Your task to perform on an android device: turn off translation in the chrome app Image 0: 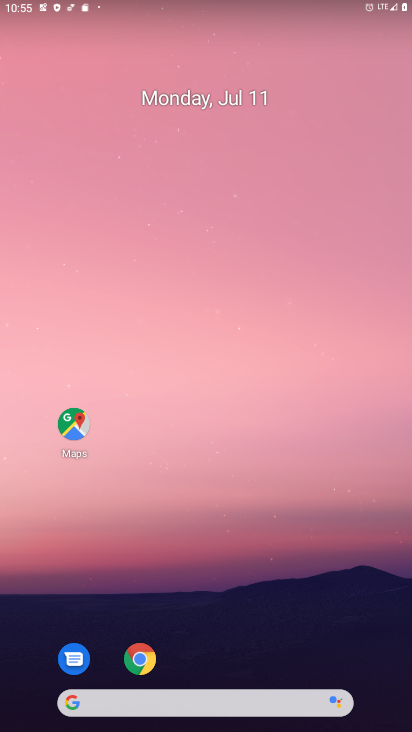
Step 0: drag from (212, 659) to (310, 178)
Your task to perform on an android device: turn off translation in the chrome app Image 1: 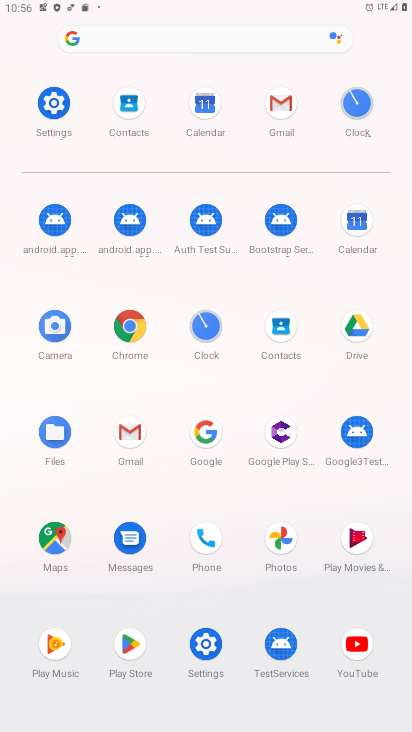
Step 1: click (133, 325)
Your task to perform on an android device: turn off translation in the chrome app Image 2: 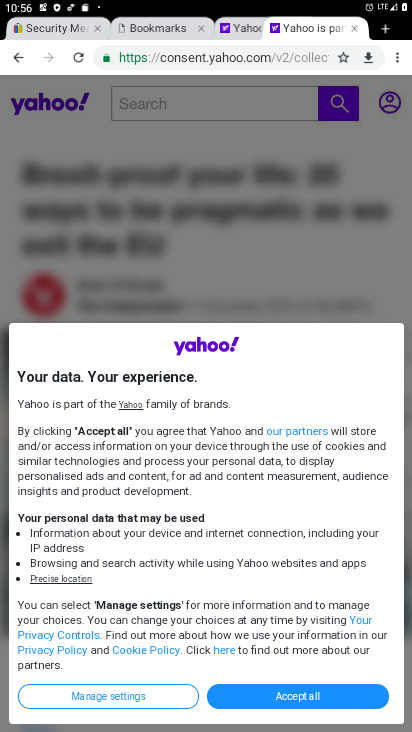
Step 2: click (392, 54)
Your task to perform on an android device: turn off translation in the chrome app Image 3: 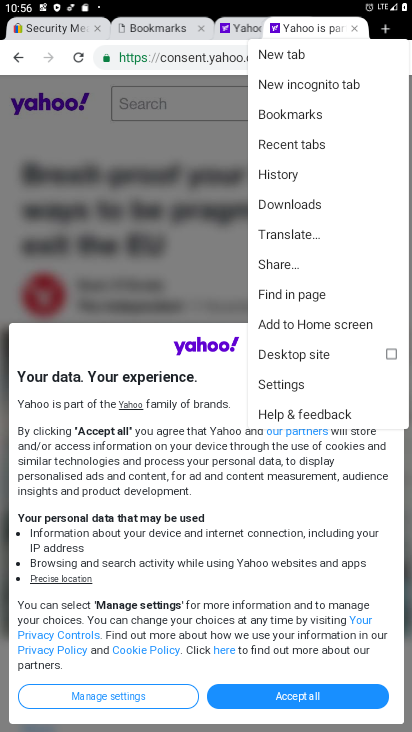
Step 3: click (282, 386)
Your task to perform on an android device: turn off translation in the chrome app Image 4: 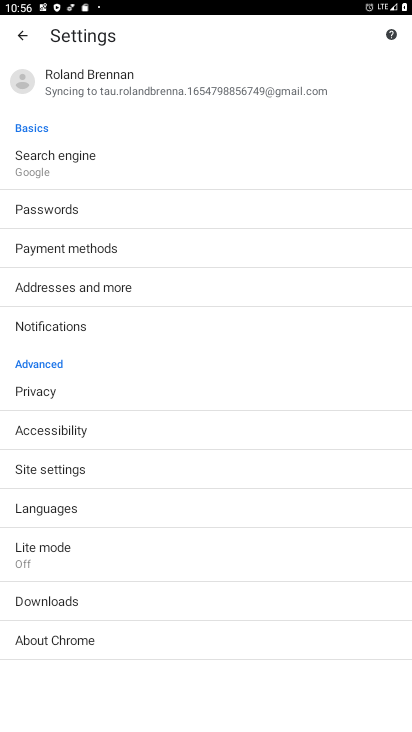
Step 4: click (65, 504)
Your task to perform on an android device: turn off translation in the chrome app Image 5: 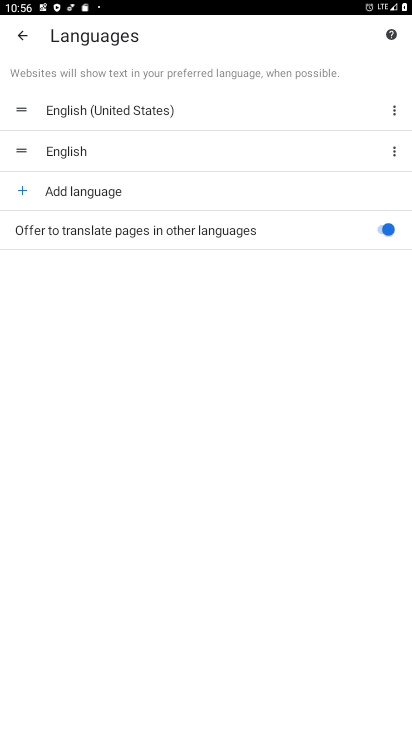
Step 5: click (379, 223)
Your task to perform on an android device: turn off translation in the chrome app Image 6: 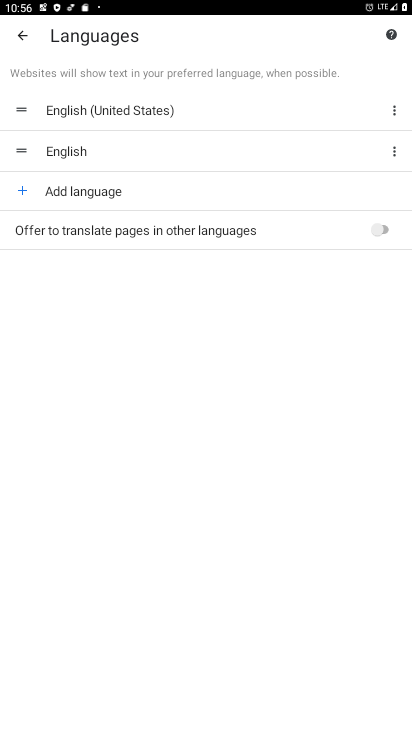
Step 6: task complete